Your task to perform on an android device: Go to calendar. Show me events next week Image 0: 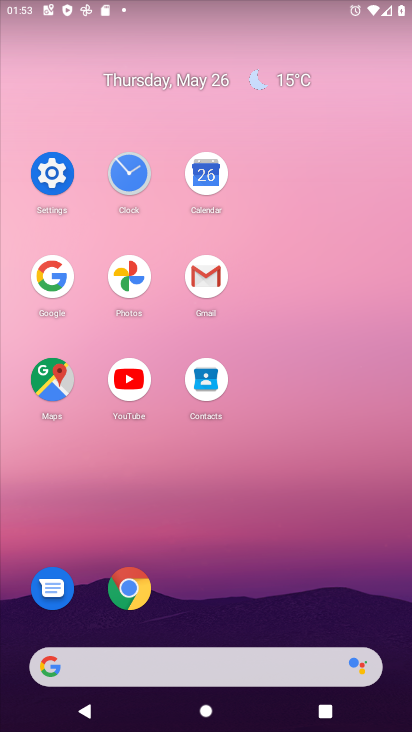
Step 0: click (216, 178)
Your task to perform on an android device: Go to calendar. Show me events next week Image 1: 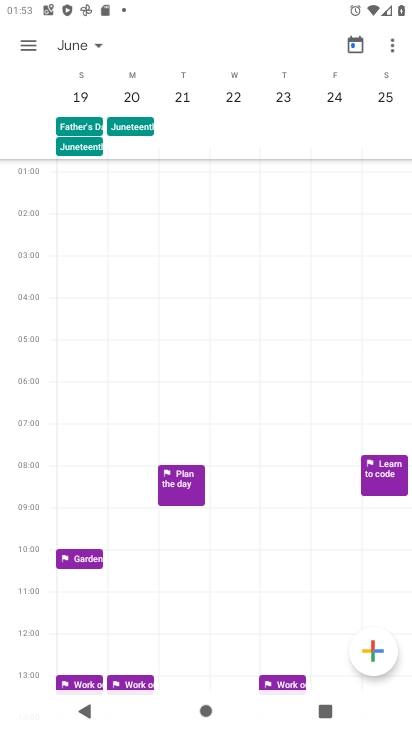
Step 1: click (93, 41)
Your task to perform on an android device: Go to calendar. Show me events next week Image 2: 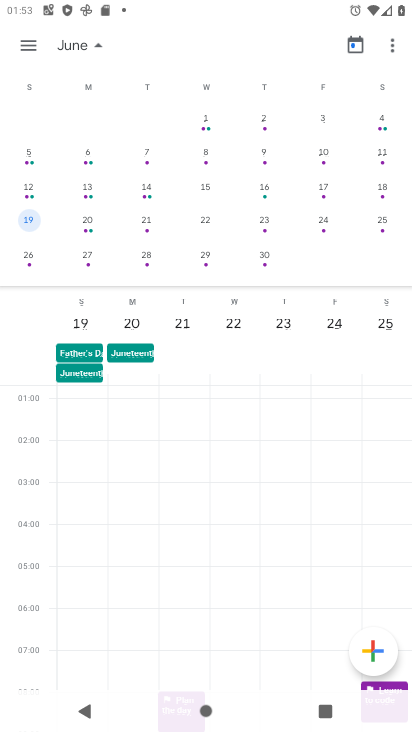
Step 2: drag from (44, 179) to (411, 198)
Your task to perform on an android device: Go to calendar. Show me events next week Image 3: 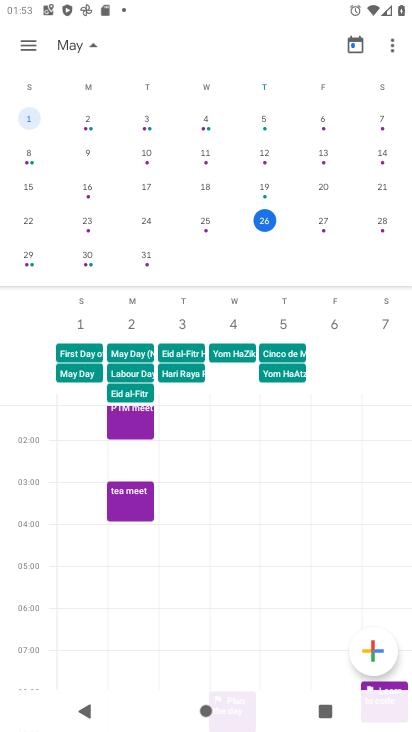
Step 3: click (28, 56)
Your task to perform on an android device: Go to calendar. Show me events next week Image 4: 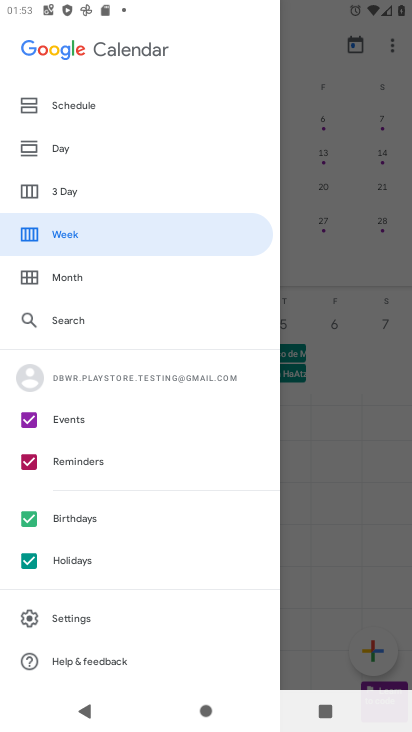
Step 4: click (82, 233)
Your task to perform on an android device: Go to calendar. Show me events next week Image 5: 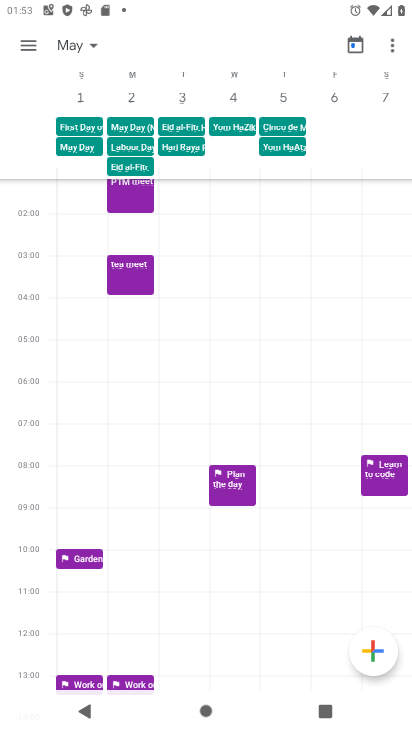
Step 5: task complete